Your task to perform on an android device: delete browsing data in the chrome app Image 0: 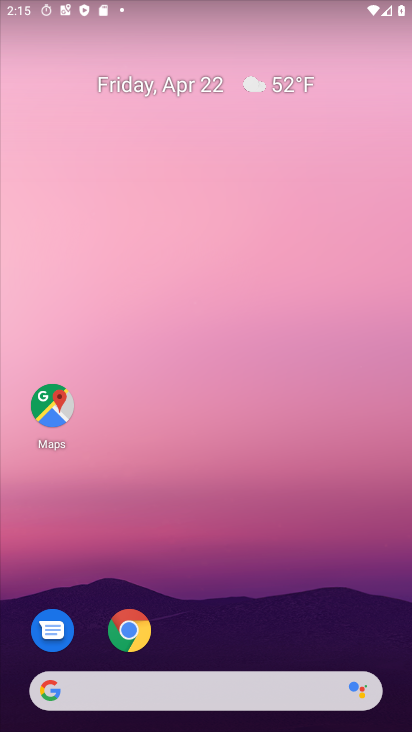
Step 0: drag from (404, 390) to (404, 121)
Your task to perform on an android device: delete browsing data in the chrome app Image 1: 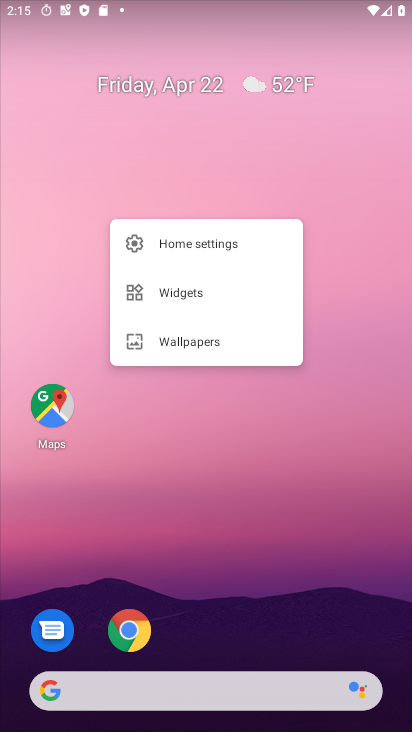
Step 1: click (125, 627)
Your task to perform on an android device: delete browsing data in the chrome app Image 2: 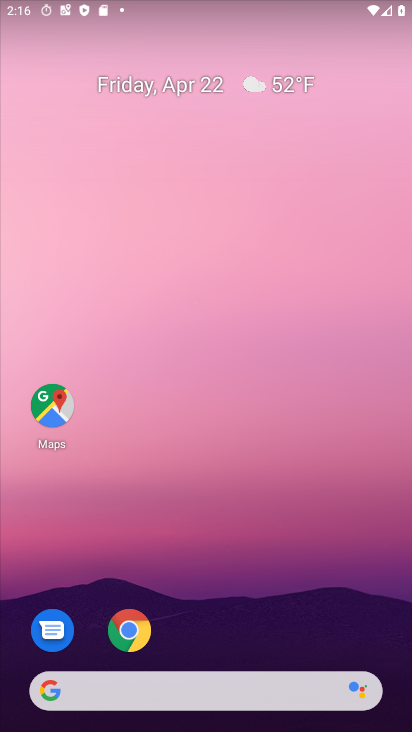
Step 2: click (127, 622)
Your task to perform on an android device: delete browsing data in the chrome app Image 3: 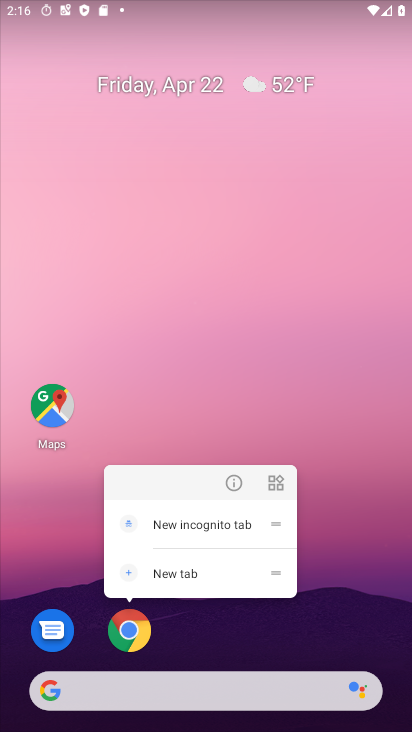
Step 3: click (128, 623)
Your task to perform on an android device: delete browsing data in the chrome app Image 4: 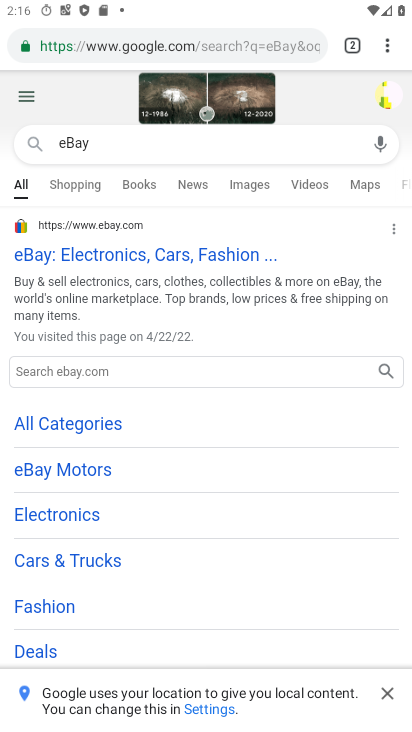
Step 4: click (387, 43)
Your task to perform on an android device: delete browsing data in the chrome app Image 5: 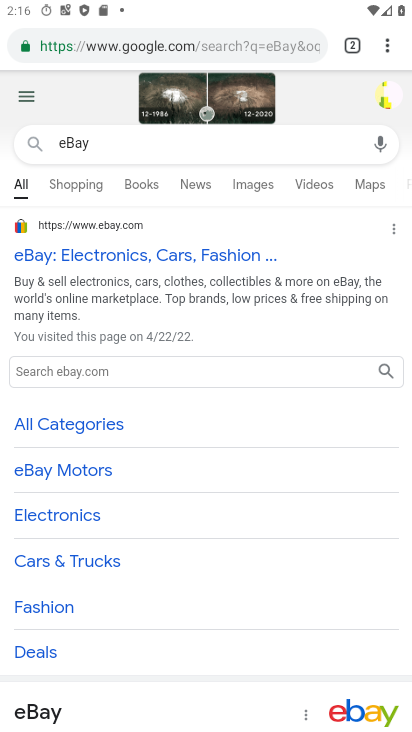
Step 5: click (387, 46)
Your task to perform on an android device: delete browsing data in the chrome app Image 6: 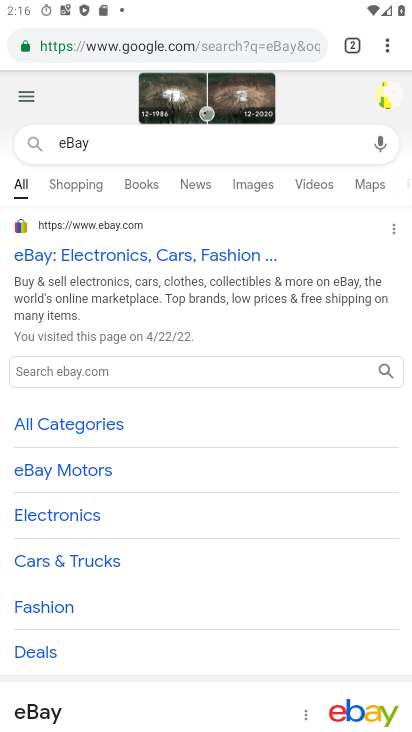
Step 6: click (387, 46)
Your task to perform on an android device: delete browsing data in the chrome app Image 7: 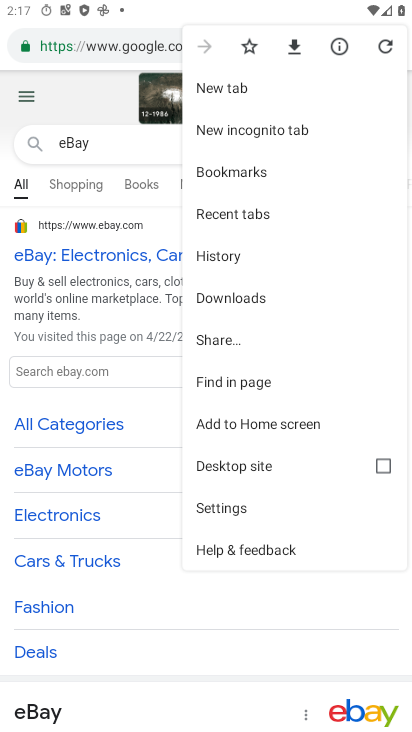
Step 7: click (232, 256)
Your task to perform on an android device: delete browsing data in the chrome app Image 8: 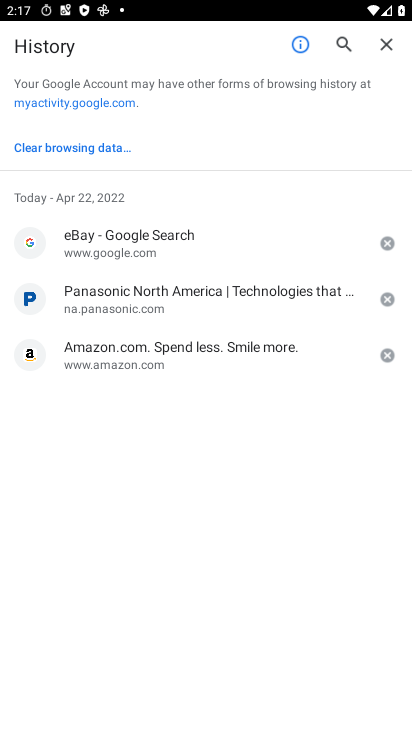
Step 8: click (72, 144)
Your task to perform on an android device: delete browsing data in the chrome app Image 9: 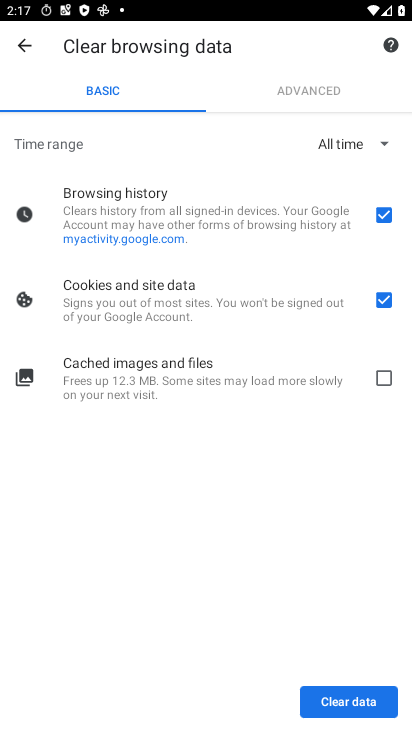
Step 9: click (377, 375)
Your task to perform on an android device: delete browsing data in the chrome app Image 10: 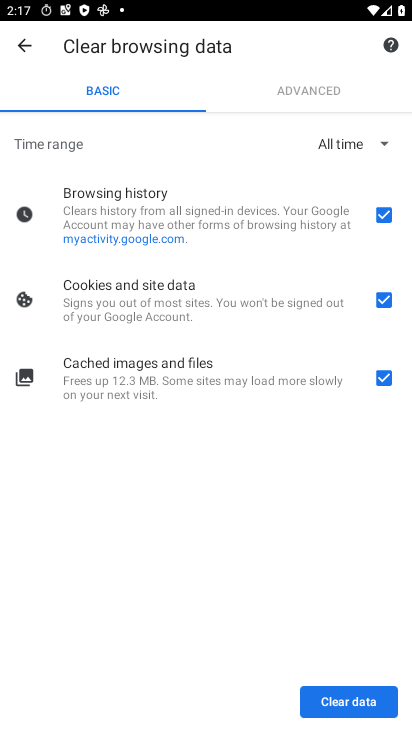
Step 10: click (349, 700)
Your task to perform on an android device: delete browsing data in the chrome app Image 11: 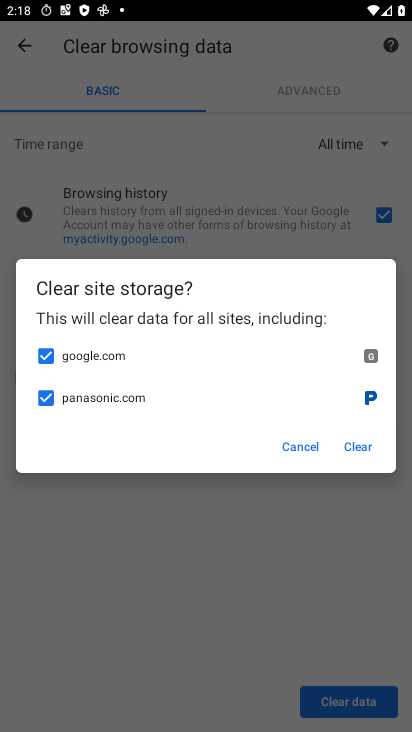
Step 11: click (355, 441)
Your task to perform on an android device: delete browsing data in the chrome app Image 12: 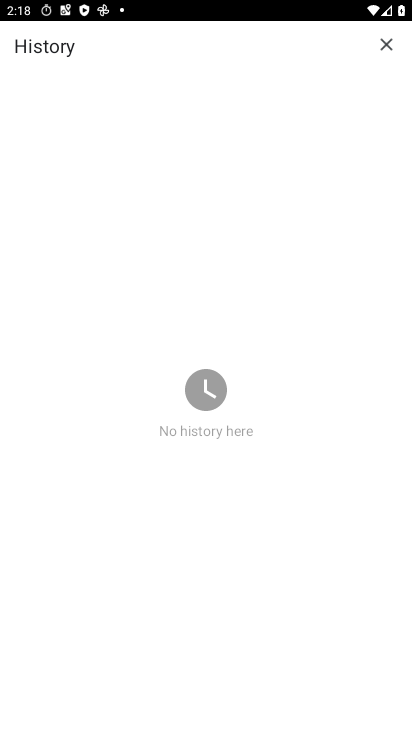
Step 12: task complete